Your task to perform on an android device: Open settings on Google Maps Image 0: 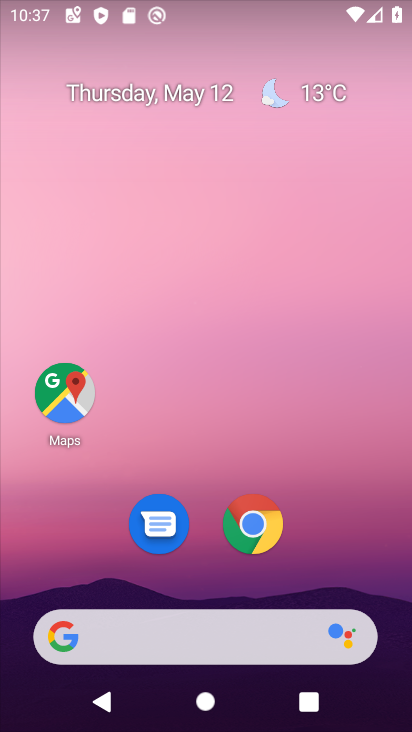
Step 0: click (86, 381)
Your task to perform on an android device: Open settings on Google Maps Image 1: 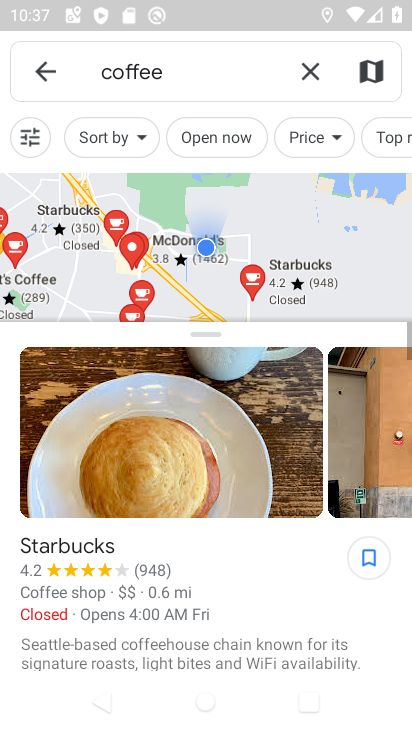
Step 1: click (45, 69)
Your task to perform on an android device: Open settings on Google Maps Image 2: 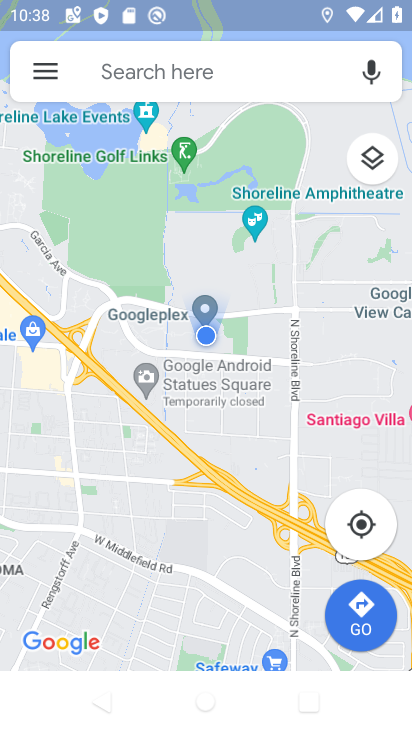
Step 2: click (48, 72)
Your task to perform on an android device: Open settings on Google Maps Image 3: 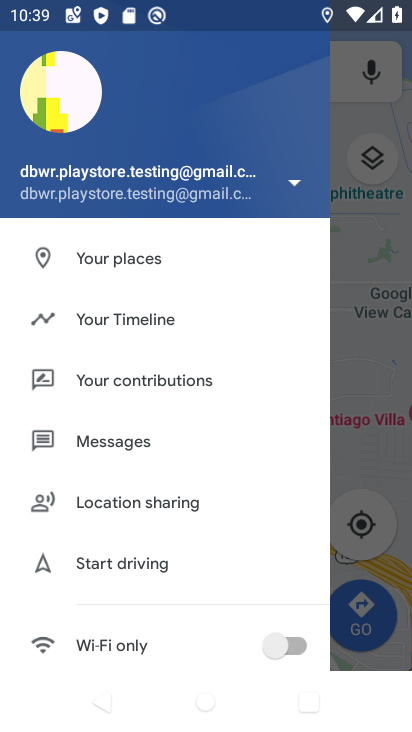
Step 3: drag from (131, 483) to (170, 155)
Your task to perform on an android device: Open settings on Google Maps Image 4: 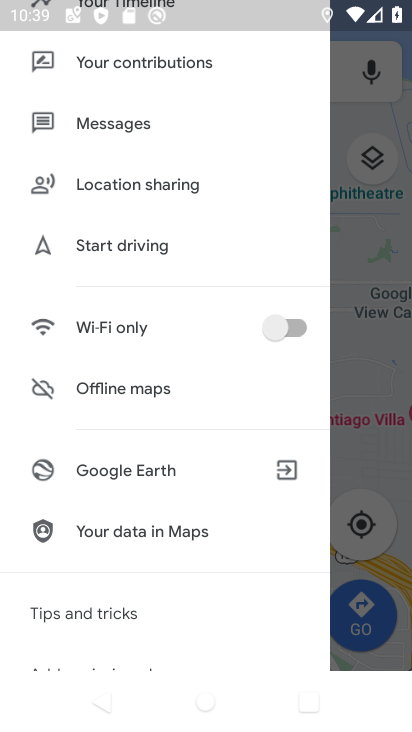
Step 4: drag from (152, 433) to (159, 204)
Your task to perform on an android device: Open settings on Google Maps Image 5: 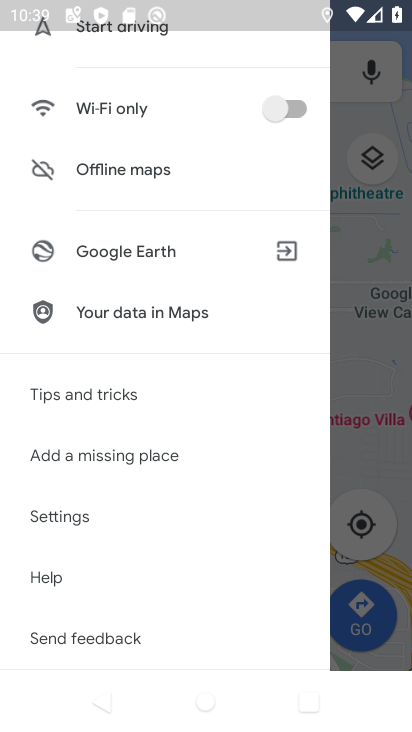
Step 5: click (101, 505)
Your task to perform on an android device: Open settings on Google Maps Image 6: 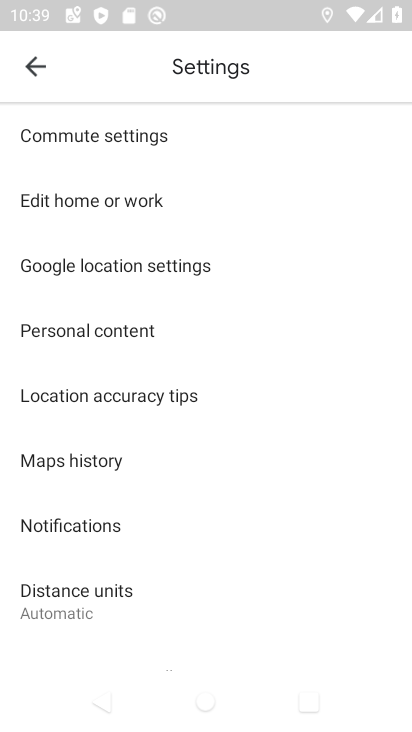
Step 6: task complete